Your task to perform on an android device: check google app version Image 0: 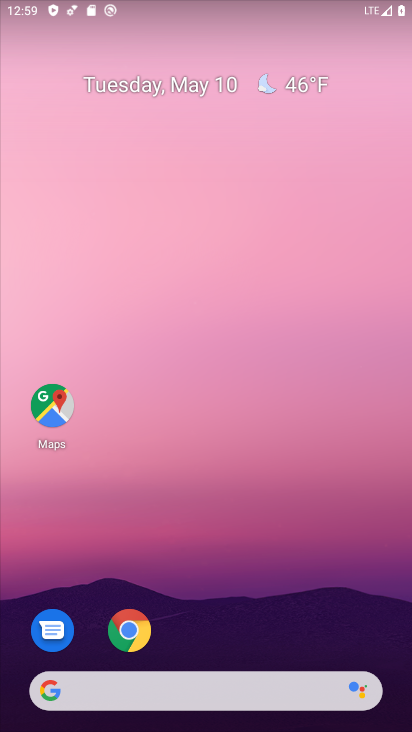
Step 0: drag from (218, 660) to (134, 46)
Your task to perform on an android device: check google app version Image 1: 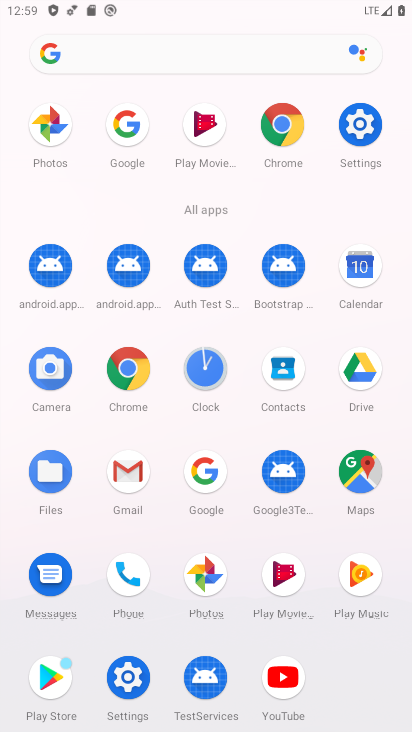
Step 1: click (352, 129)
Your task to perform on an android device: check google app version Image 2: 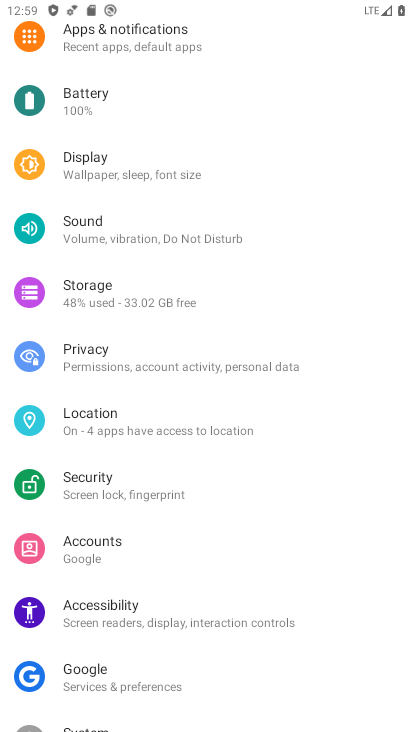
Step 2: drag from (251, 604) to (199, 16)
Your task to perform on an android device: check google app version Image 3: 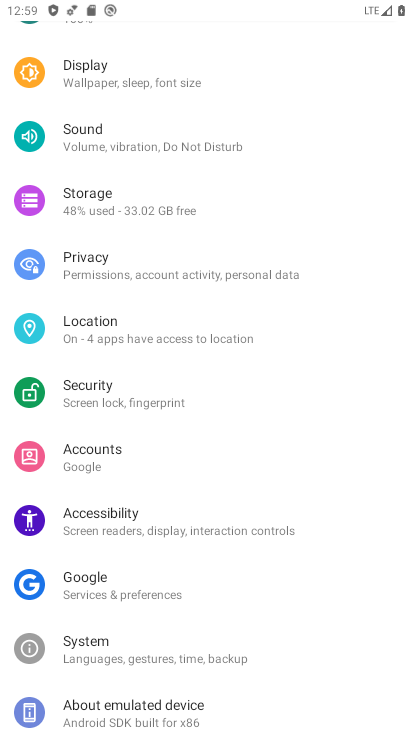
Step 3: click (97, 680)
Your task to perform on an android device: check google app version Image 4: 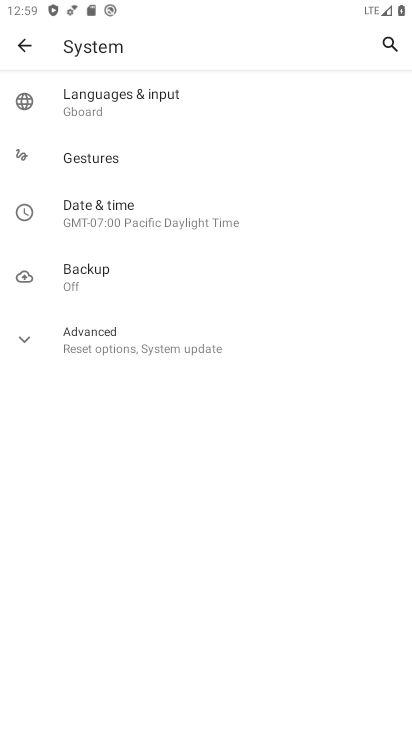
Step 4: click (19, 43)
Your task to perform on an android device: check google app version Image 5: 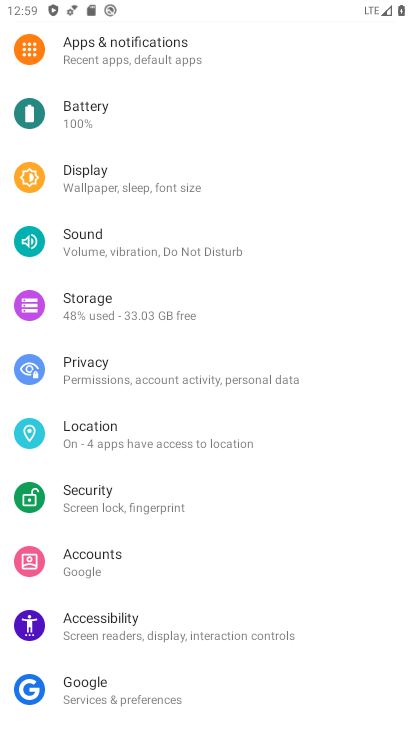
Step 5: drag from (148, 689) to (101, 300)
Your task to perform on an android device: check google app version Image 6: 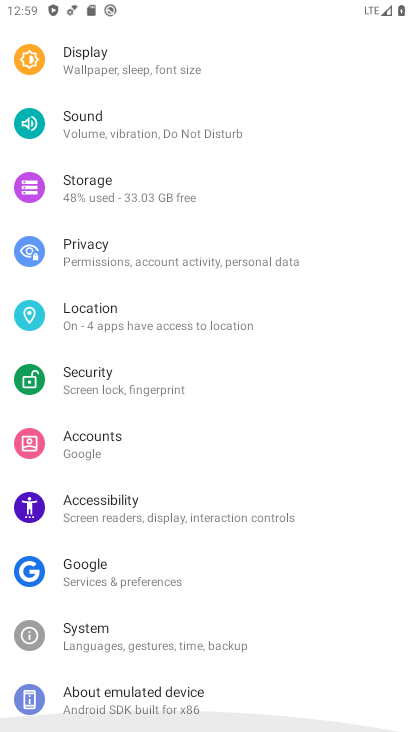
Step 6: click (144, 711)
Your task to perform on an android device: check google app version Image 7: 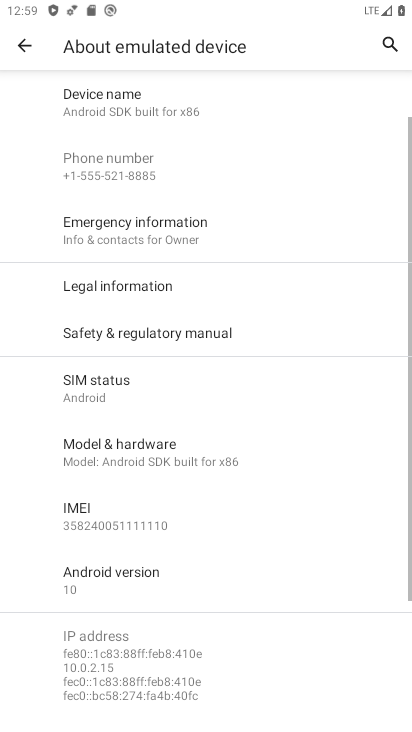
Step 7: click (118, 580)
Your task to perform on an android device: check google app version Image 8: 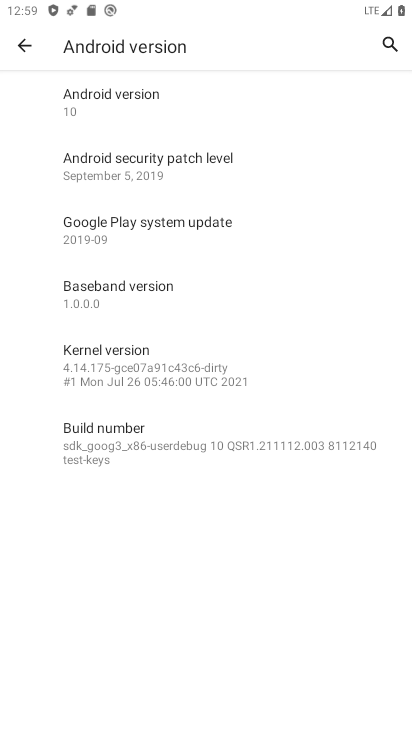
Step 8: click (85, 84)
Your task to perform on an android device: check google app version Image 9: 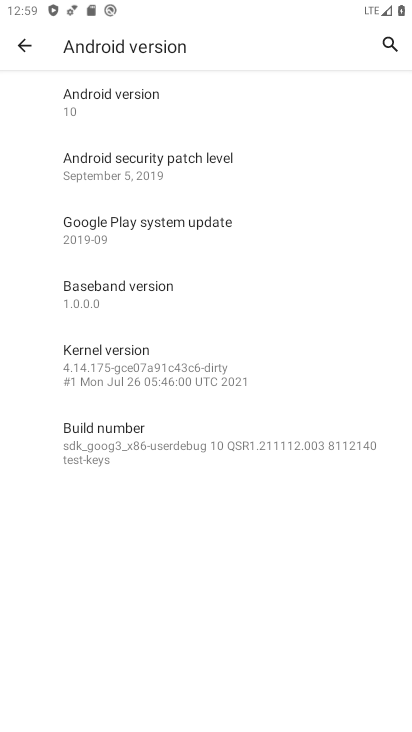
Step 9: task complete